Your task to perform on an android device: Open notification settings Image 0: 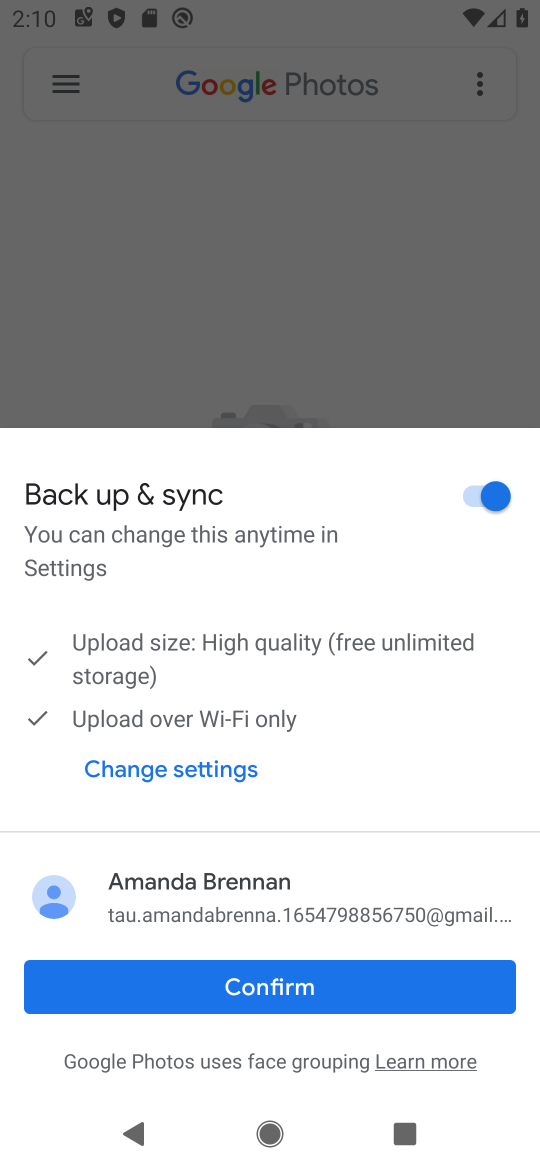
Step 0: press home button
Your task to perform on an android device: Open notification settings Image 1: 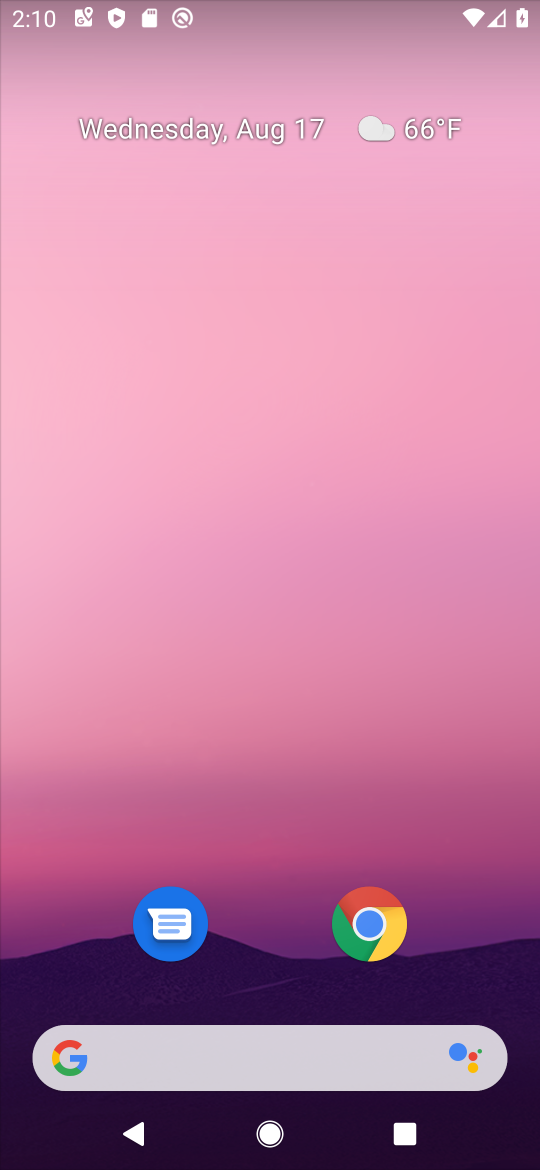
Step 1: drag from (225, 1055) to (307, 53)
Your task to perform on an android device: Open notification settings Image 2: 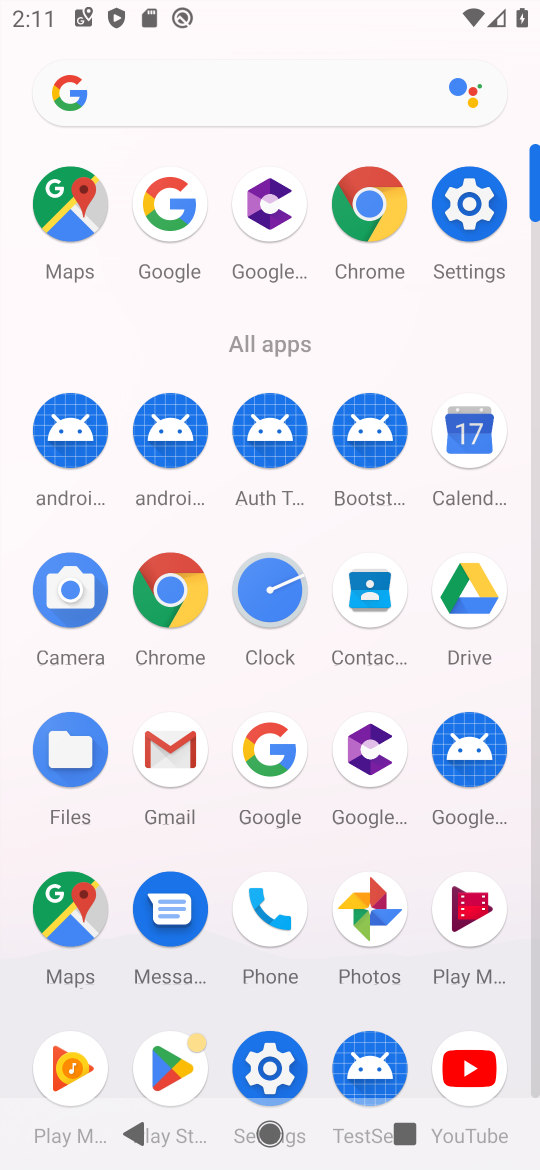
Step 2: click (469, 204)
Your task to perform on an android device: Open notification settings Image 3: 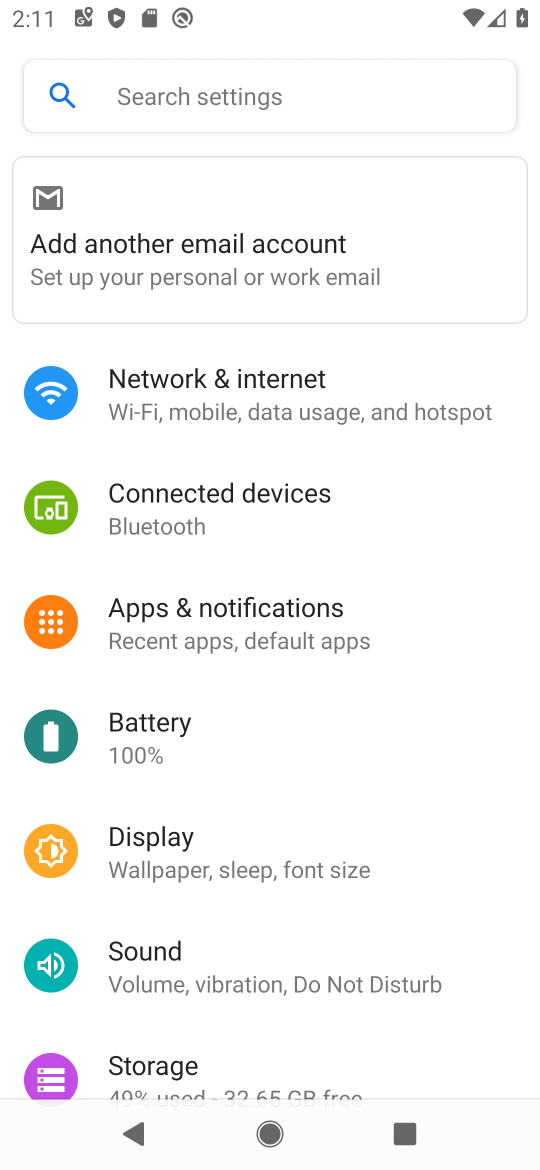
Step 3: click (322, 621)
Your task to perform on an android device: Open notification settings Image 4: 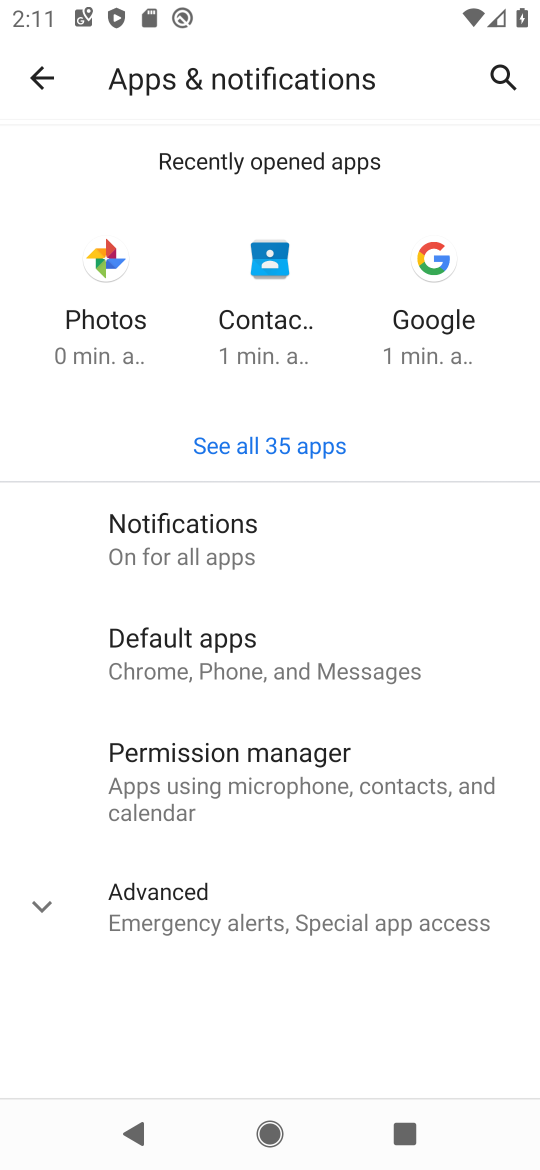
Step 4: click (220, 525)
Your task to perform on an android device: Open notification settings Image 5: 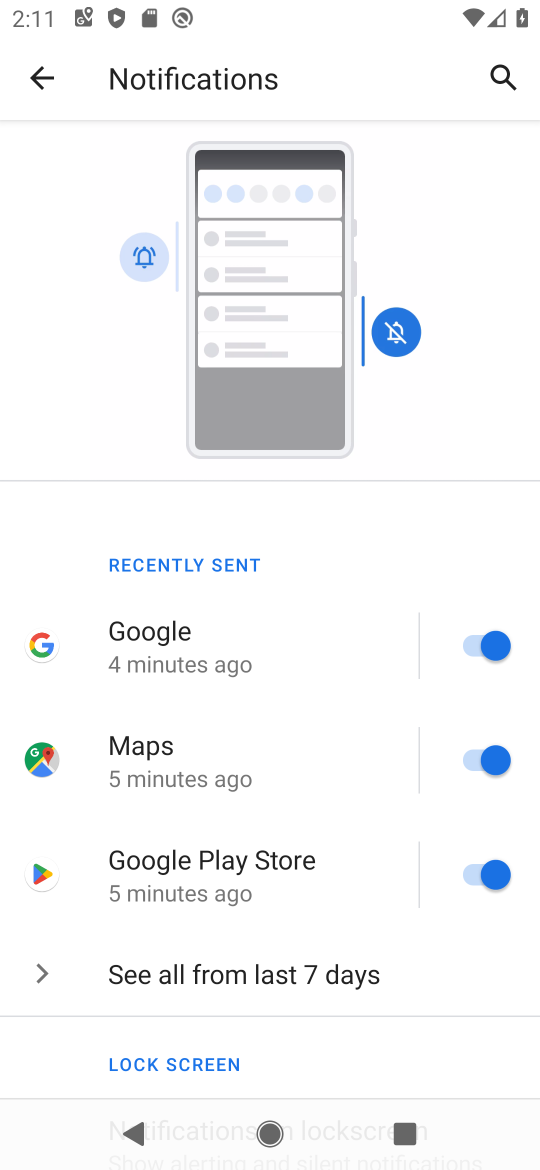
Step 5: task complete